Your task to perform on an android device: check the backup settings in the google photos Image 0: 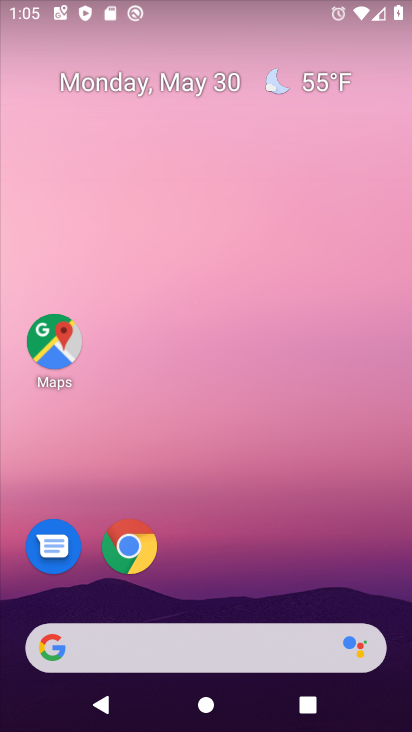
Step 0: press home button
Your task to perform on an android device: check the backup settings in the google photos Image 1: 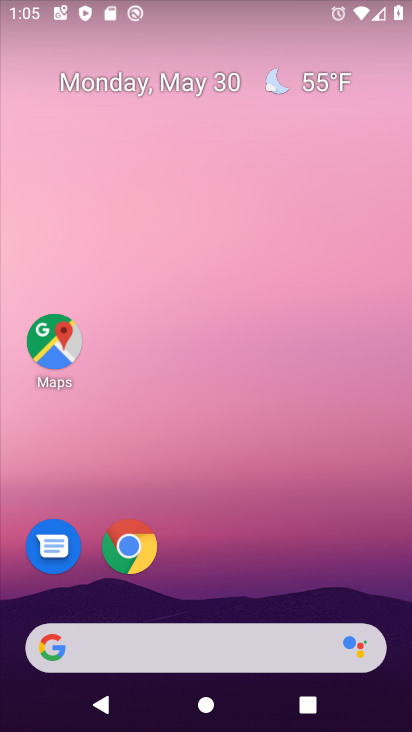
Step 1: drag from (286, 527) to (278, 183)
Your task to perform on an android device: check the backup settings in the google photos Image 2: 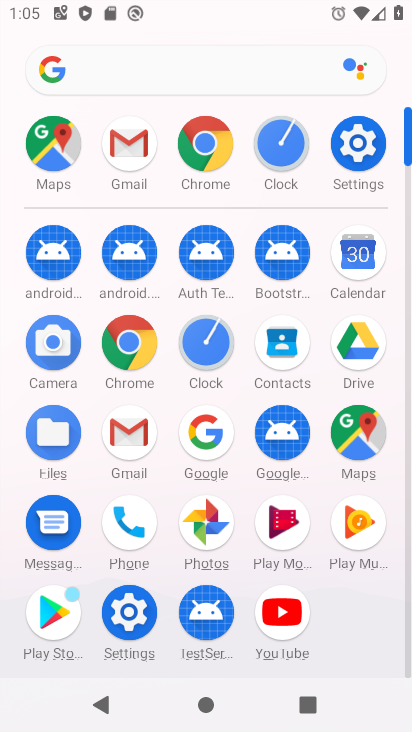
Step 2: click (207, 542)
Your task to perform on an android device: check the backup settings in the google photos Image 3: 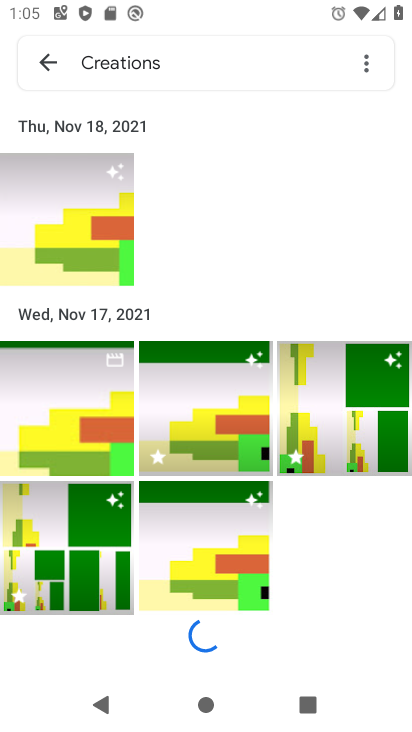
Step 3: click (49, 60)
Your task to perform on an android device: check the backup settings in the google photos Image 4: 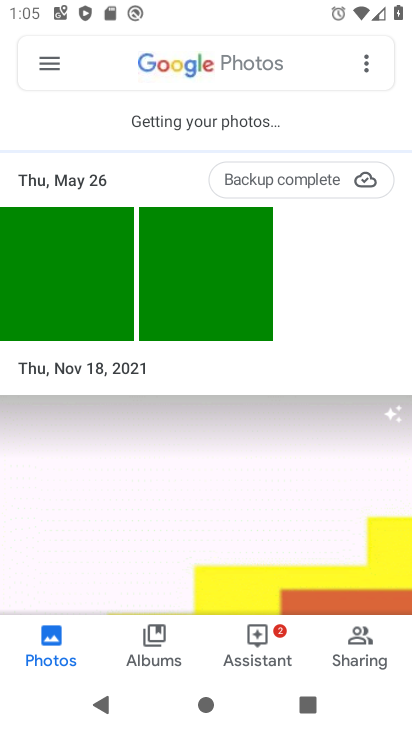
Step 4: click (53, 69)
Your task to perform on an android device: check the backup settings in the google photos Image 5: 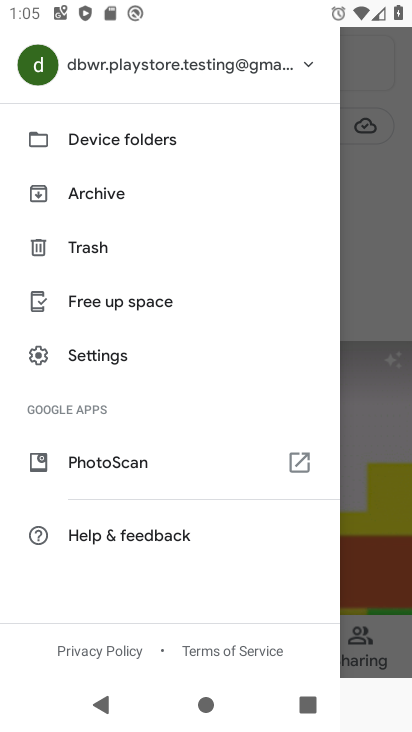
Step 5: click (95, 362)
Your task to perform on an android device: check the backup settings in the google photos Image 6: 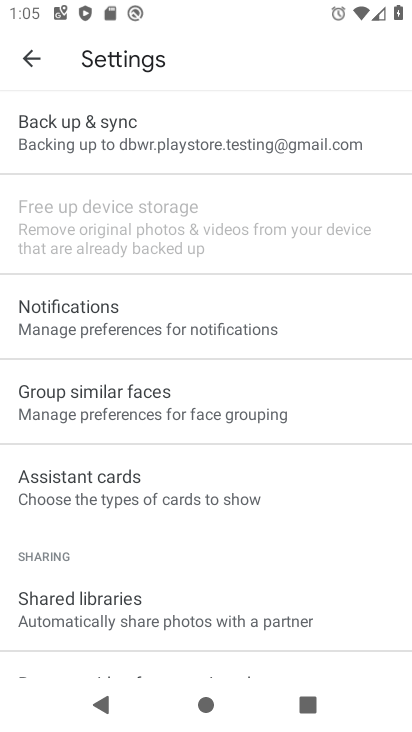
Step 6: click (74, 127)
Your task to perform on an android device: check the backup settings in the google photos Image 7: 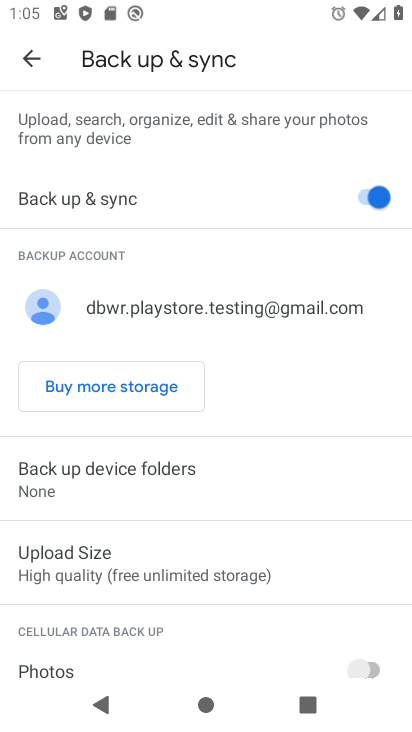
Step 7: task complete